Your task to perform on an android device: Is it going to rain today? Image 0: 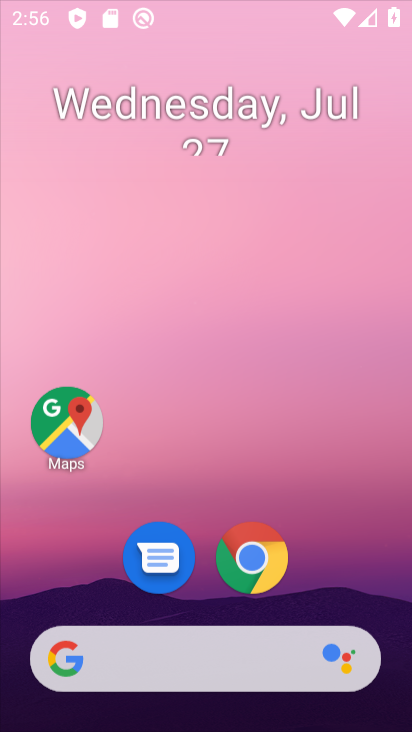
Step 0: drag from (213, 166) to (231, 16)
Your task to perform on an android device: Is it going to rain today? Image 1: 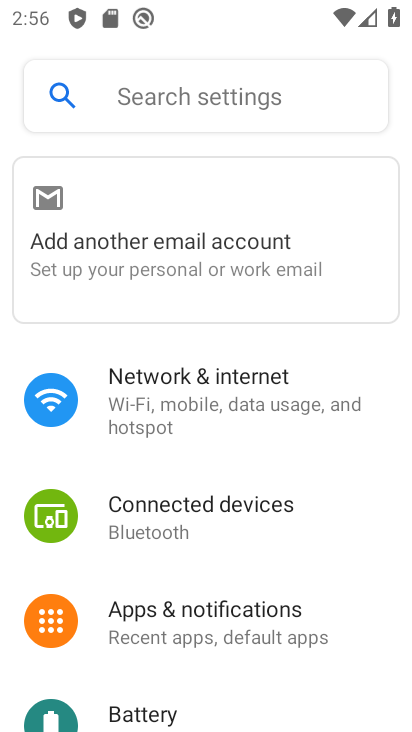
Step 1: press back button
Your task to perform on an android device: Is it going to rain today? Image 2: 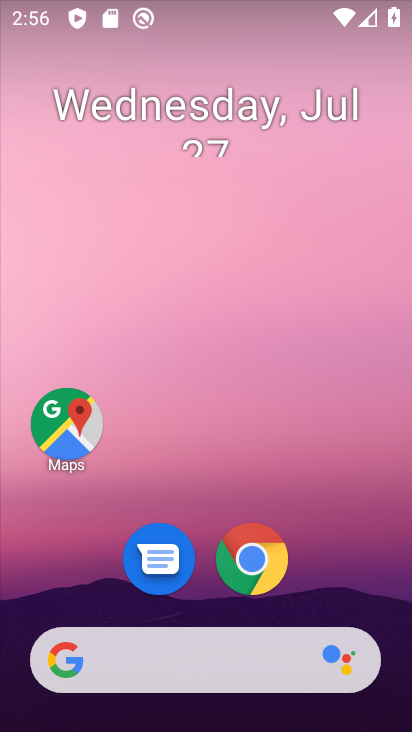
Step 2: drag from (94, 606) to (253, 39)
Your task to perform on an android device: Is it going to rain today? Image 3: 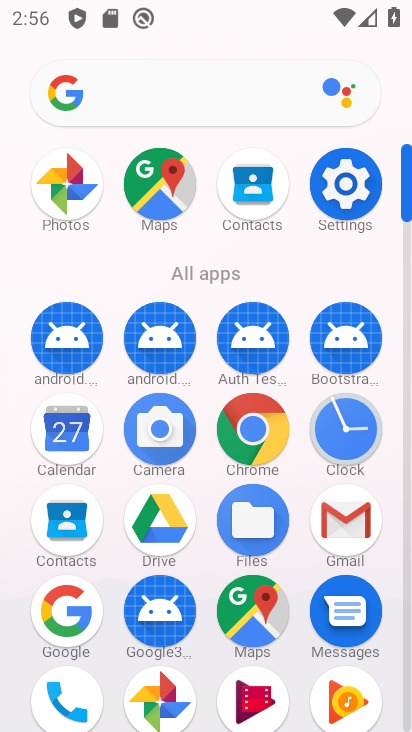
Step 3: click (177, 100)
Your task to perform on an android device: Is it going to rain today? Image 4: 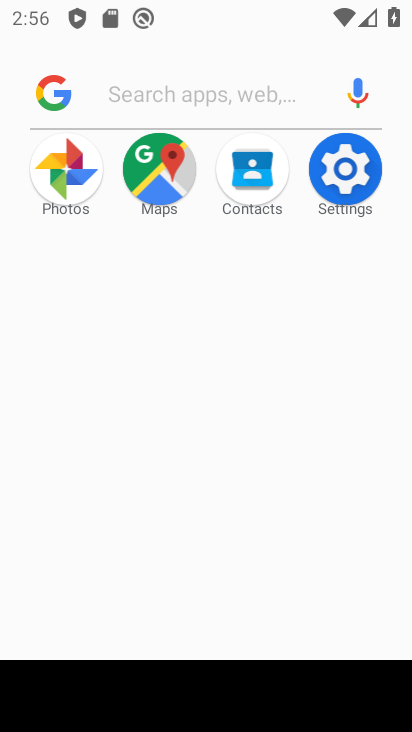
Step 4: click (157, 96)
Your task to perform on an android device: Is it going to rain today? Image 5: 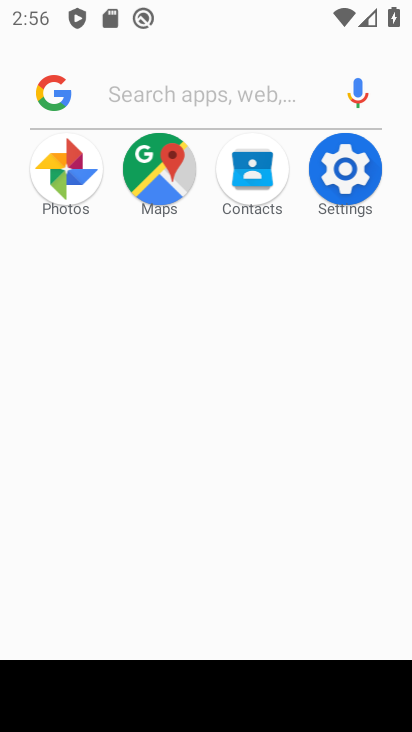
Step 5: type "weather"
Your task to perform on an android device: Is it going to rain today? Image 6: 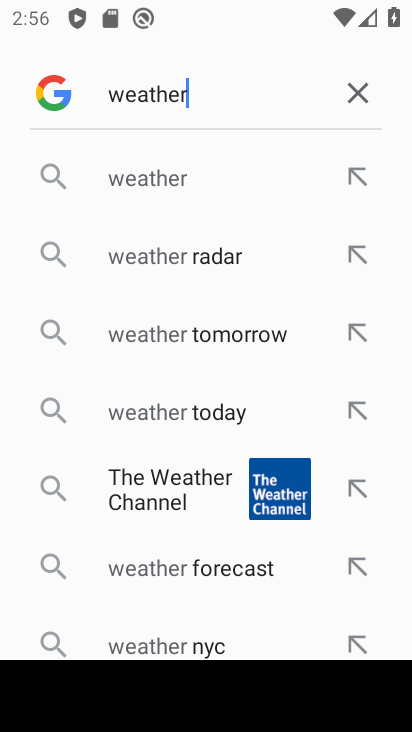
Step 6: click (200, 177)
Your task to perform on an android device: Is it going to rain today? Image 7: 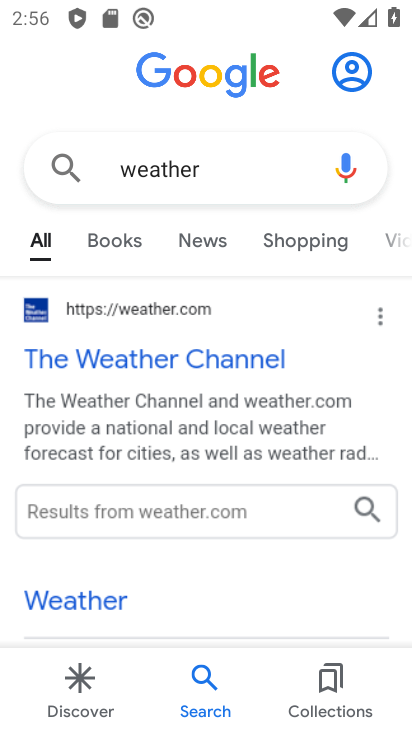
Step 7: drag from (135, 576) to (222, 731)
Your task to perform on an android device: Is it going to rain today? Image 8: 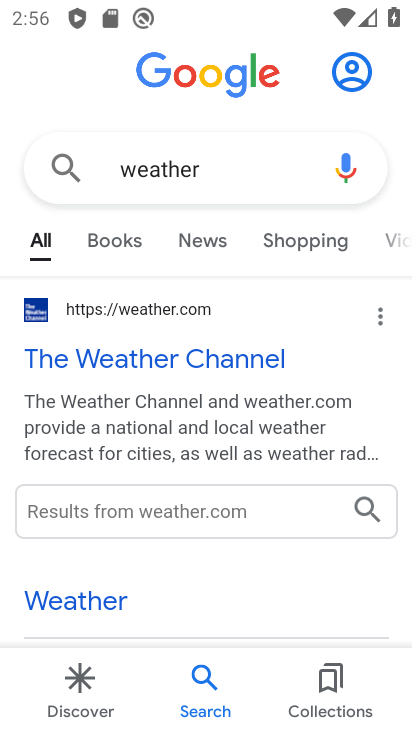
Step 8: click (187, 356)
Your task to perform on an android device: Is it going to rain today? Image 9: 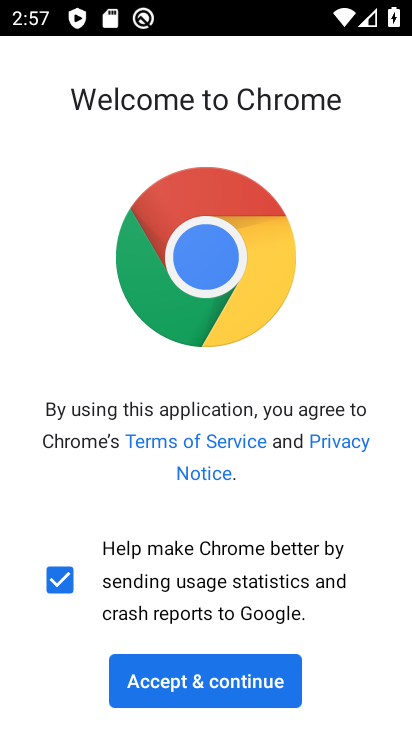
Step 9: click (220, 694)
Your task to perform on an android device: Is it going to rain today? Image 10: 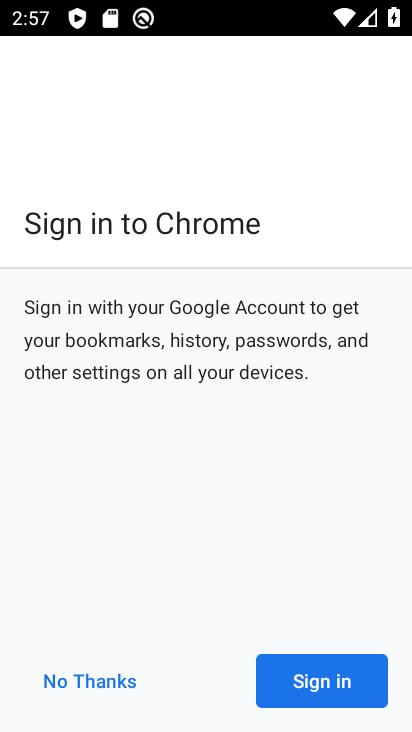
Step 10: click (344, 660)
Your task to perform on an android device: Is it going to rain today? Image 11: 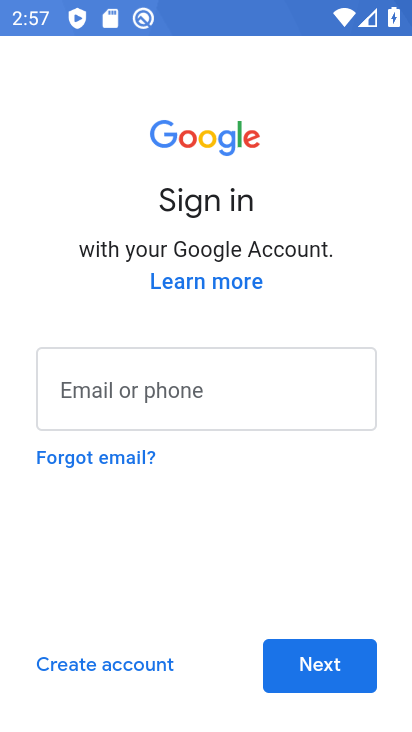
Step 11: task complete